Your task to perform on an android device: open device folders in google photos Image 0: 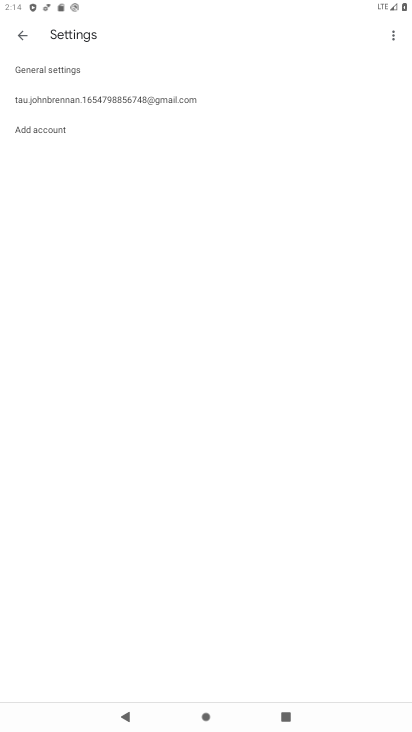
Step 0: press home button
Your task to perform on an android device: open device folders in google photos Image 1: 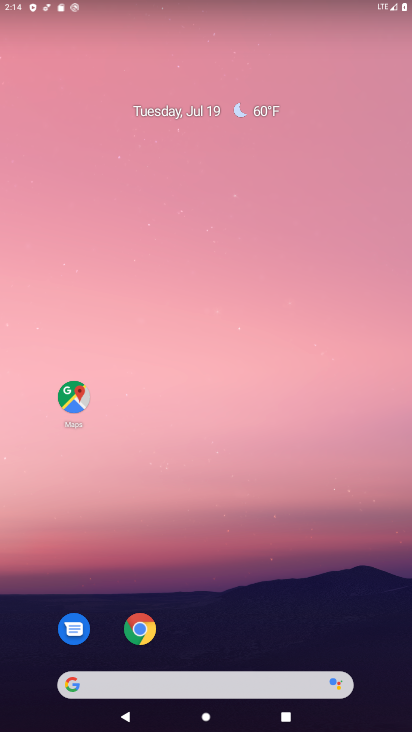
Step 1: drag from (210, 628) to (200, 159)
Your task to perform on an android device: open device folders in google photos Image 2: 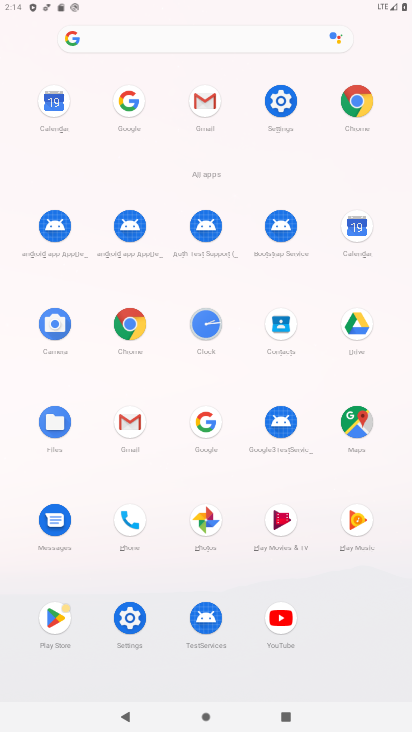
Step 2: click (210, 520)
Your task to perform on an android device: open device folders in google photos Image 3: 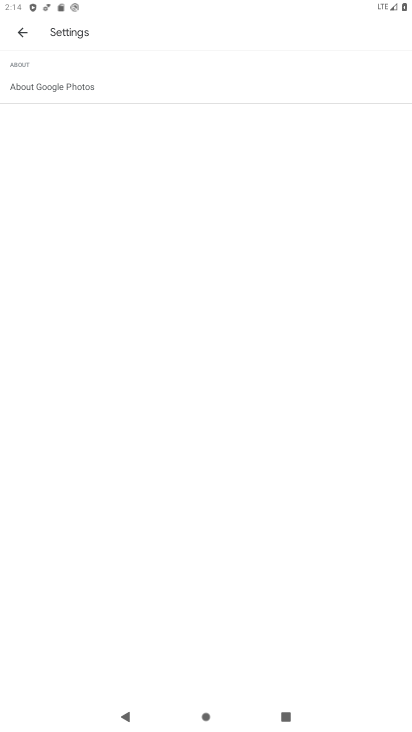
Step 3: click (29, 31)
Your task to perform on an android device: open device folders in google photos Image 4: 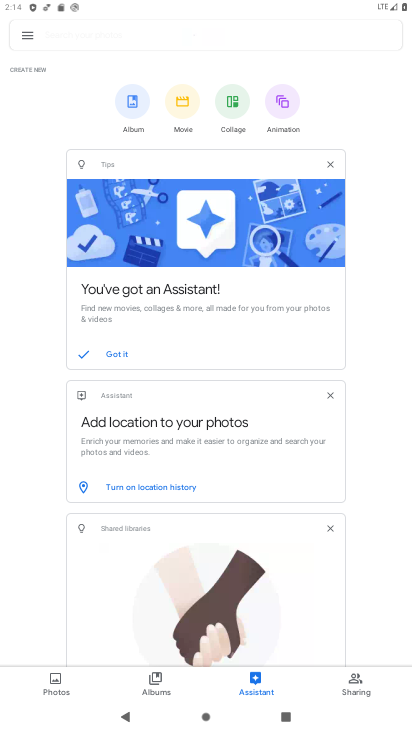
Step 4: click (28, 16)
Your task to perform on an android device: open device folders in google photos Image 5: 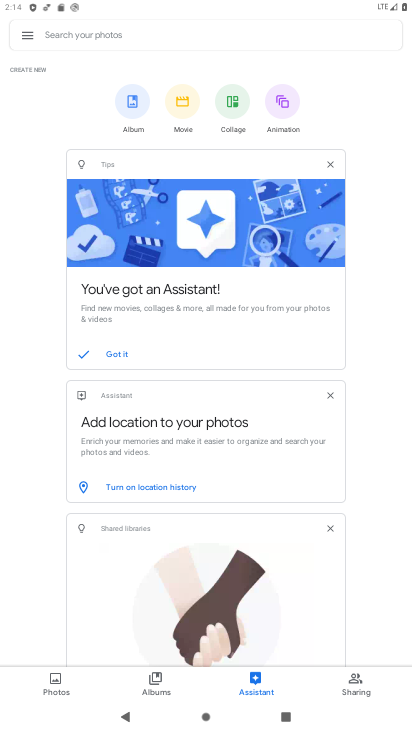
Step 5: click (27, 34)
Your task to perform on an android device: open device folders in google photos Image 6: 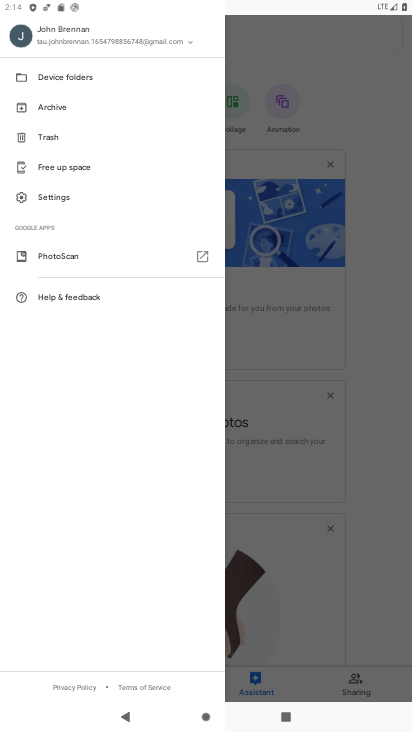
Step 6: click (107, 81)
Your task to perform on an android device: open device folders in google photos Image 7: 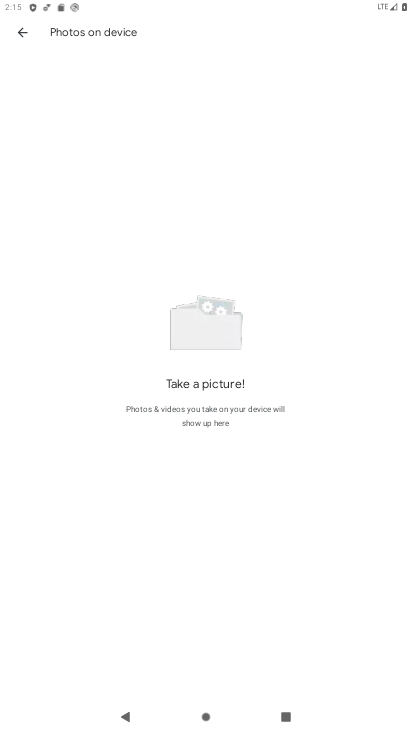
Step 7: task complete